Your task to perform on an android device: turn on data saver in the chrome app Image 0: 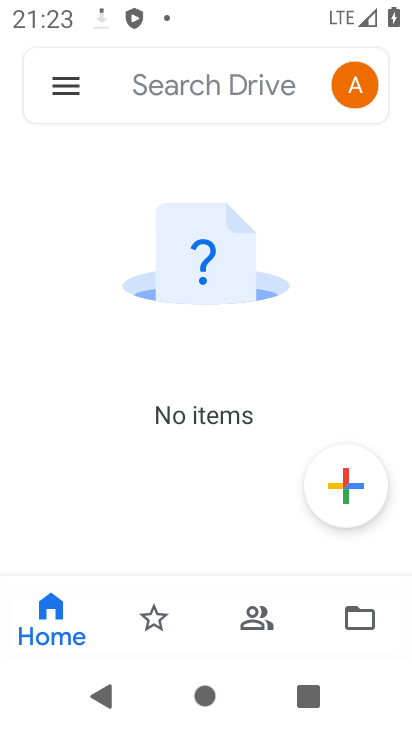
Step 0: press back button
Your task to perform on an android device: turn on data saver in the chrome app Image 1: 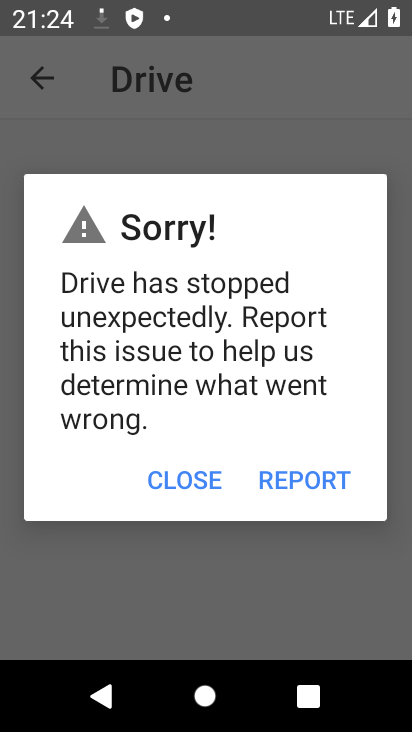
Step 1: press home button
Your task to perform on an android device: turn on data saver in the chrome app Image 2: 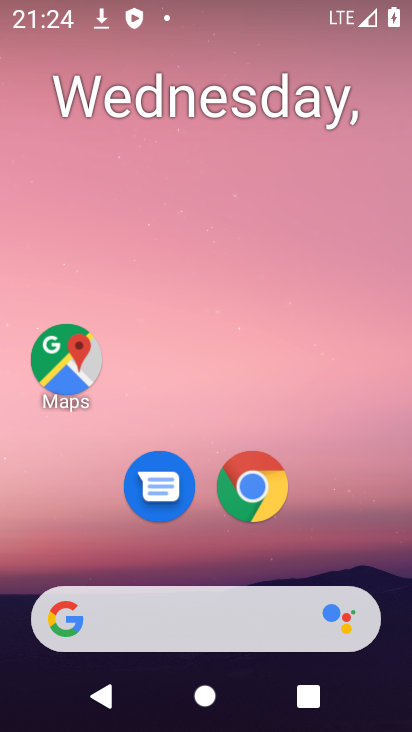
Step 2: click (258, 503)
Your task to perform on an android device: turn on data saver in the chrome app Image 3: 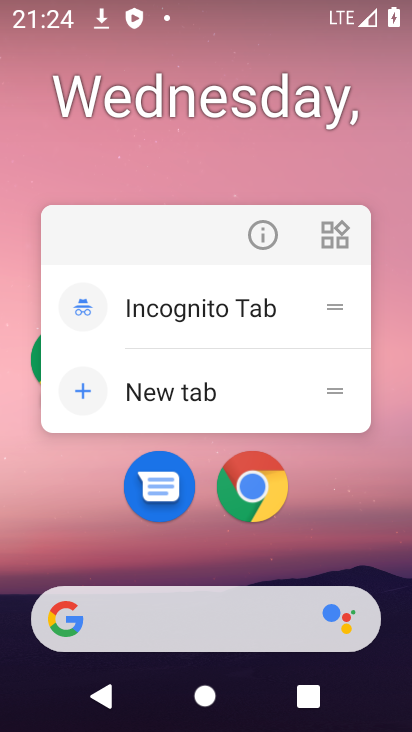
Step 3: click (258, 502)
Your task to perform on an android device: turn on data saver in the chrome app Image 4: 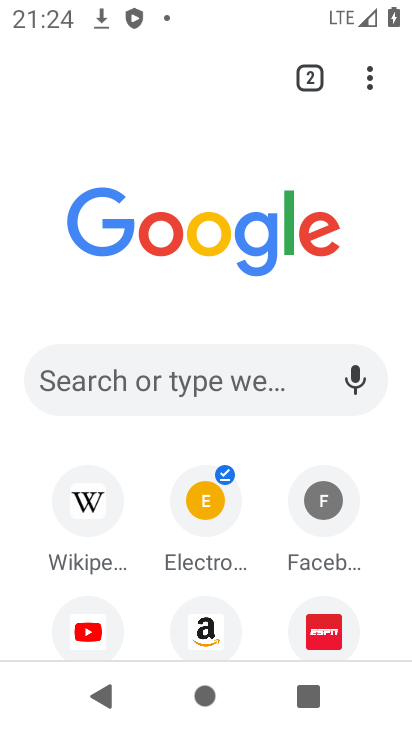
Step 4: drag from (364, 83) to (175, 540)
Your task to perform on an android device: turn on data saver in the chrome app Image 5: 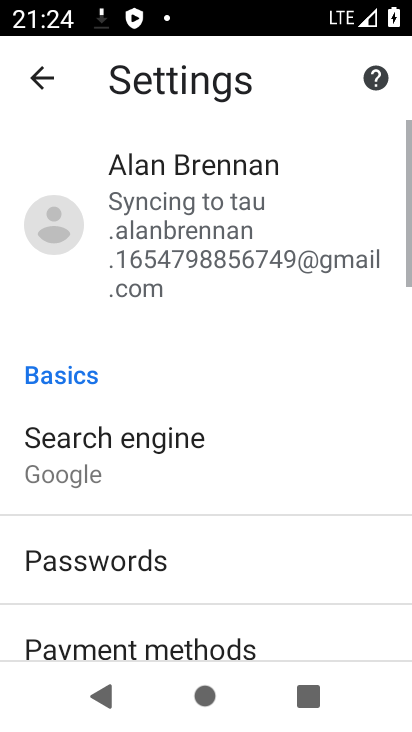
Step 5: drag from (187, 590) to (287, 70)
Your task to perform on an android device: turn on data saver in the chrome app Image 6: 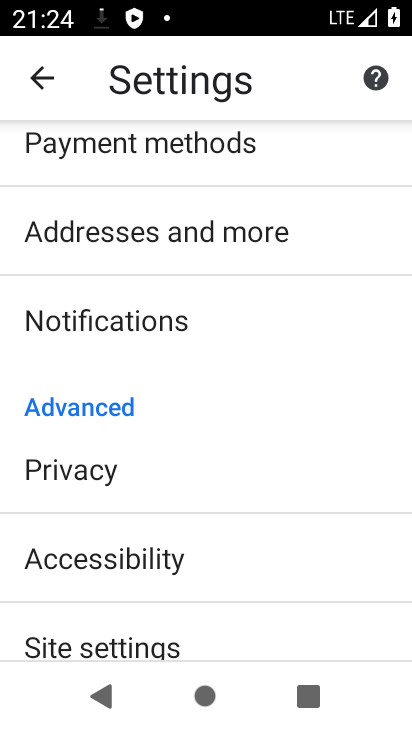
Step 6: drag from (182, 551) to (272, 143)
Your task to perform on an android device: turn on data saver in the chrome app Image 7: 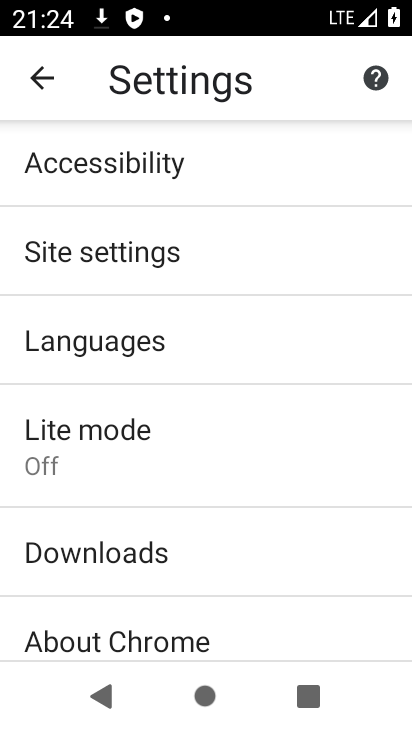
Step 7: click (156, 449)
Your task to perform on an android device: turn on data saver in the chrome app Image 8: 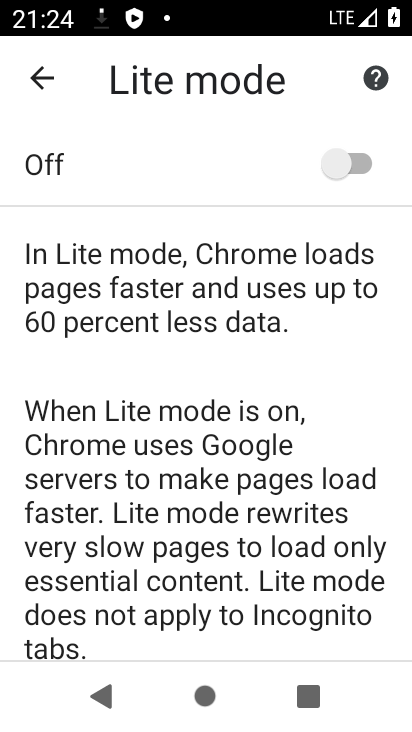
Step 8: click (345, 152)
Your task to perform on an android device: turn on data saver in the chrome app Image 9: 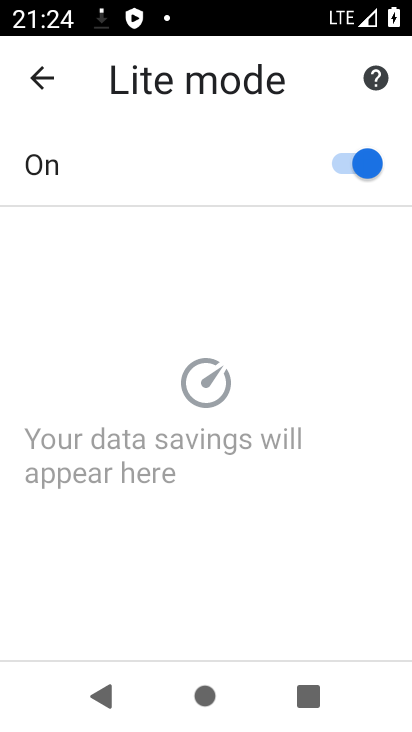
Step 9: task complete